Your task to perform on an android device: Check the weather Image 0: 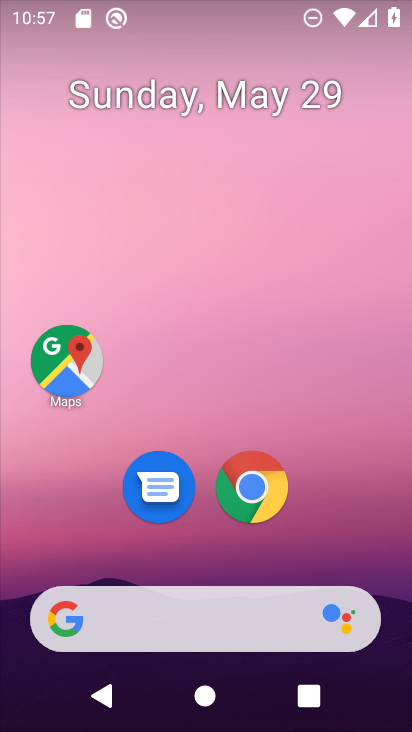
Step 0: press home button
Your task to perform on an android device: Check the weather Image 1: 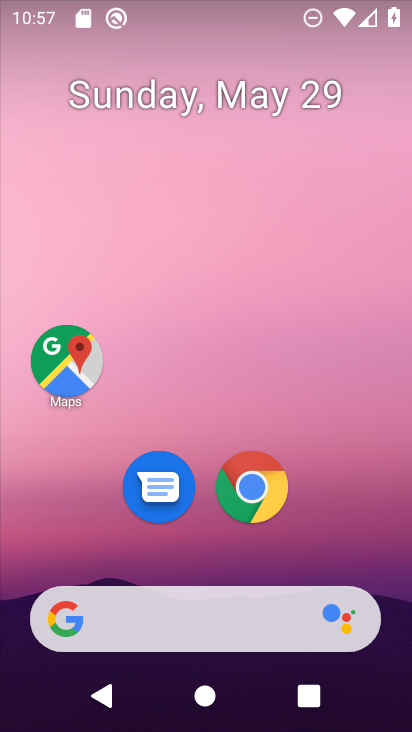
Step 1: drag from (16, 228) to (392, 231)
Your task to perform on an android device: Check the weather Image 2: 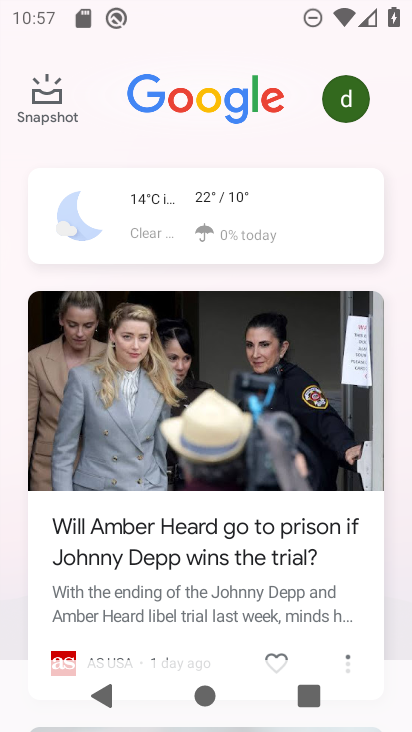
Step 2: click (222, 202)
Your task to perform on an android device: Check the weather Image 3: 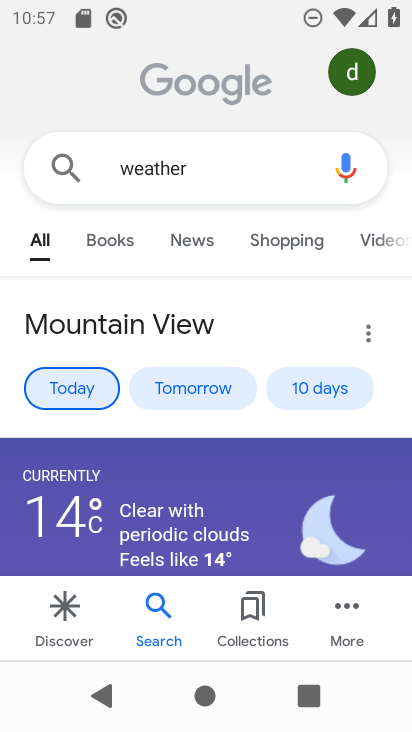
Step 3: task complete